Your task to perform on an android device: Search for dell xps on walmart.com, select the first entry, and add it to the cart. Image 0: 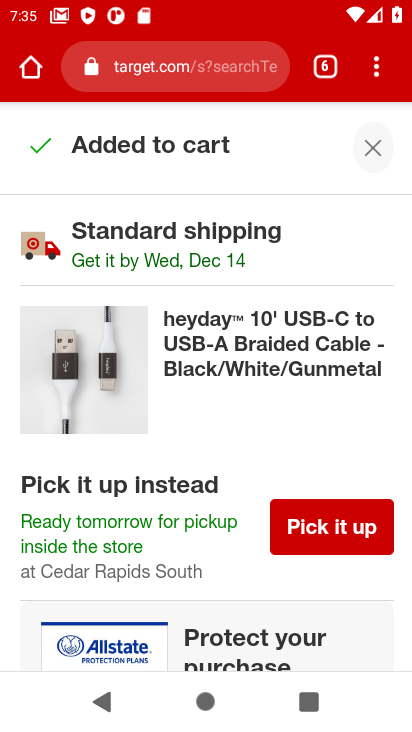
Step 0: click (168, 71)
Your task to perform on an android device: Search for dell xps on walmart.com, select the first entry, and add it to the cart. Image 1: 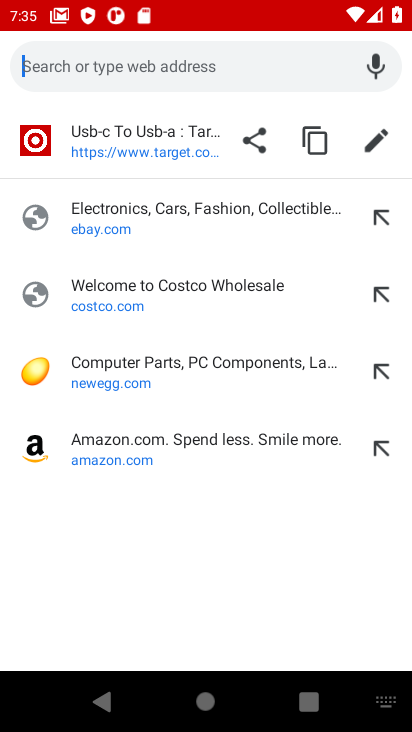
Step 1: type "walmart.com"
Your task to perform on an android device: Search for dell xps on walmart.com, select the first entry, and add it to the cart. Image 2: 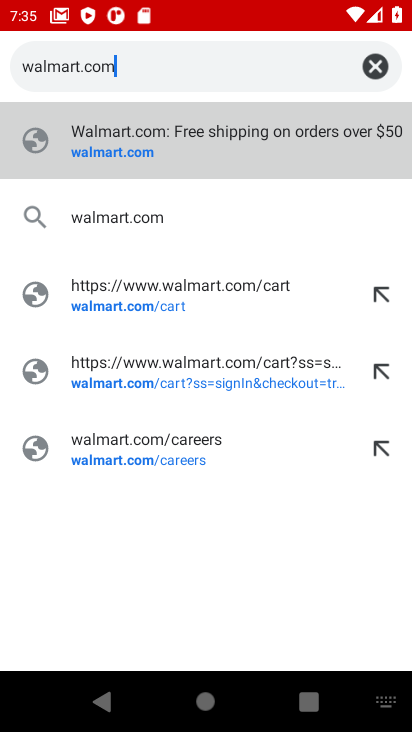
Step 2: click (115, 146)
Your task to perform on an android device: Search for dell xps on walmart.com, select the first entry, and add it to the cart. Image 3: 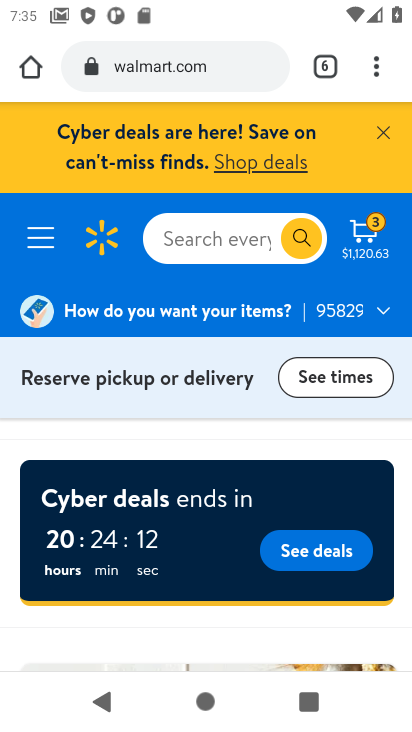
Step 3: click (190, 237)
Your task to perform on an android device: Search for dell xps on walmart.com, select the first entry, and add it to the cart. Image 4: 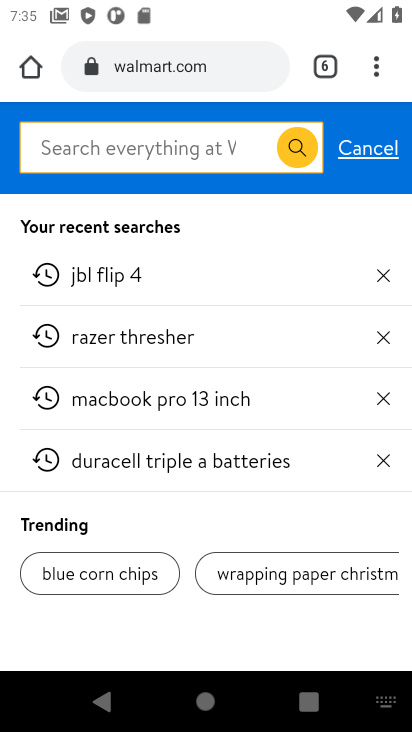
Step 4: type "dell xps "
Your task to perform on an android device: Search for dell xps on walmart.com, select the first entry, and add it to the cart. Image 5: 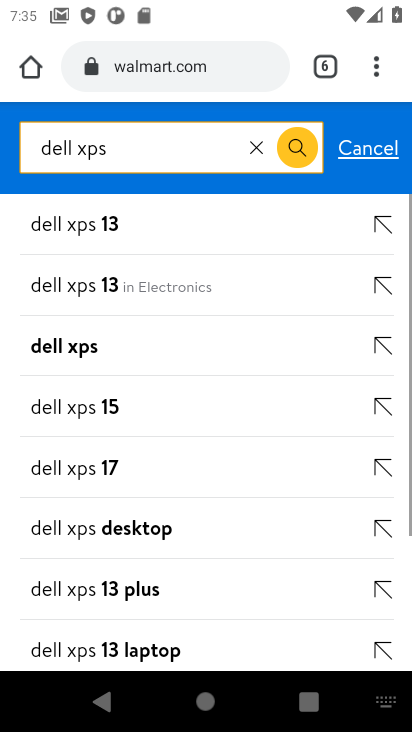
Step 5: click (56, 339)
Your task to perform on an android device: Search for dell xps on walmart.com, select the first entry, and add it to the cart. Image 6: 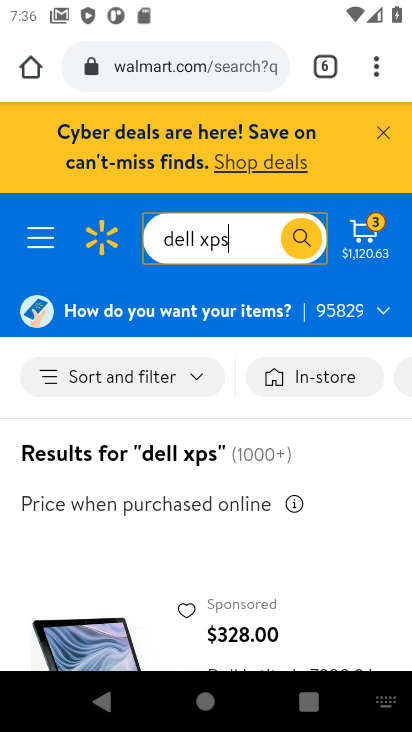
Step 6: task complete